Your task to perform on an android device: Go to Amazon Image 0: 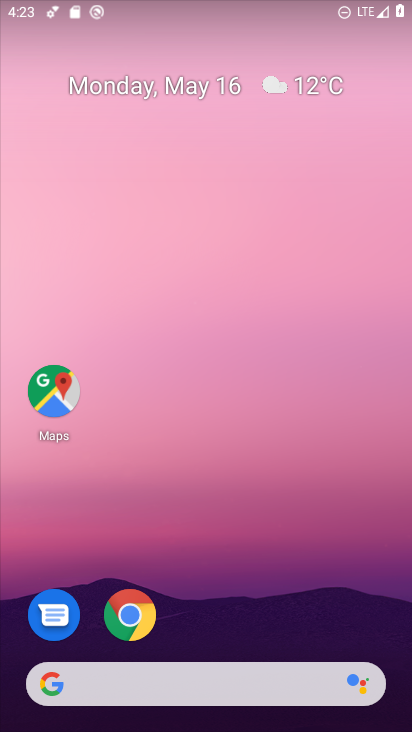
Step 0: click (132, 618)
Your task to perform on an android device: Go to Amazon Image 1: 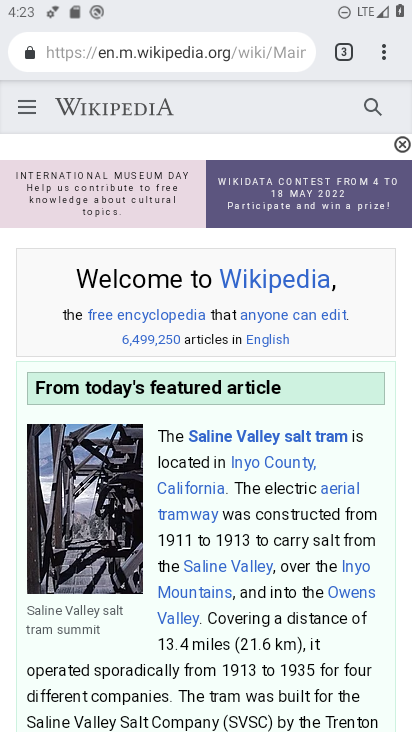
Step 1: click (383, 55)
Your task to perform on an android device: Go to Amazon Image 2: 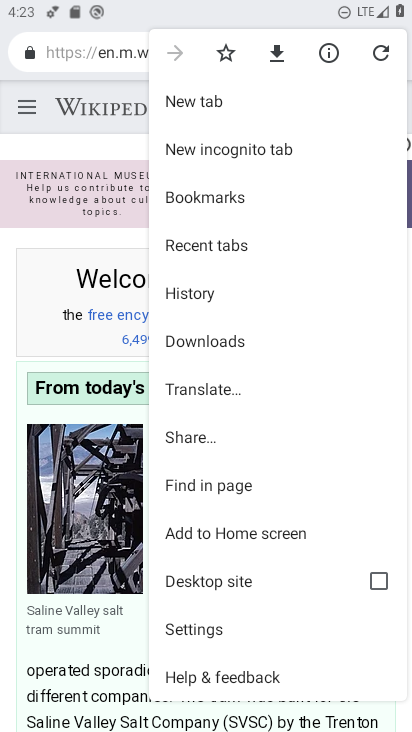
Step 2: click (193, 101)
Your task to perform on an android device: Go to Amazon Image 3: 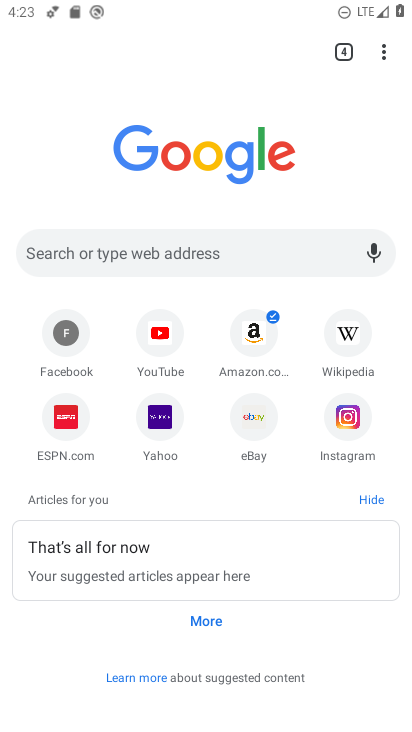
Step 3: click (251, 339)
Your task to perform on an android device: Go to Amazon Image 4: 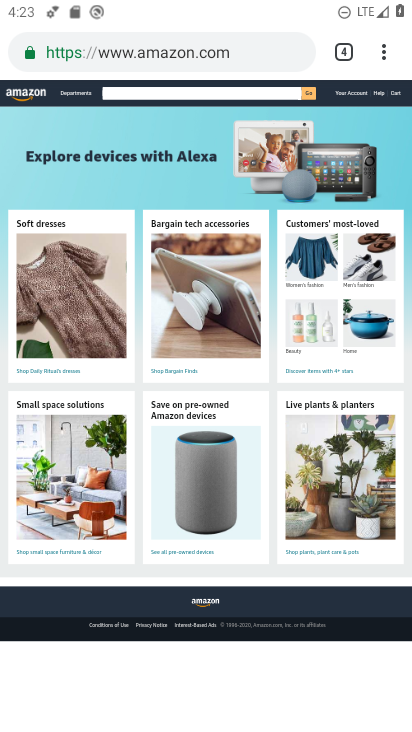
Step 4: task complete